Your task to perform on an android device: check storage Image 0: 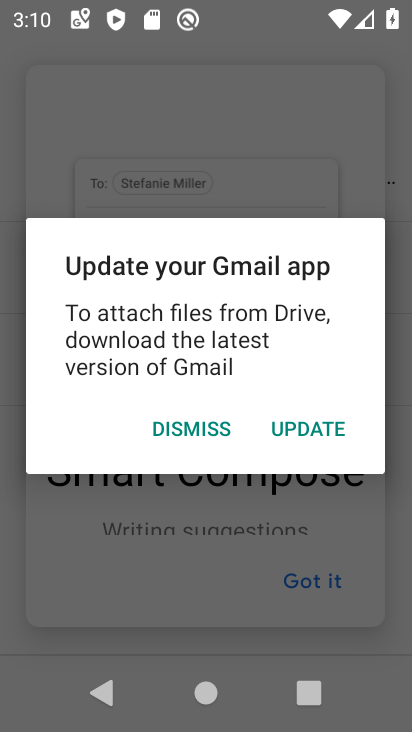
Step 0: click (171, 433)
Your task to perform on an android device: check storage Image 1: 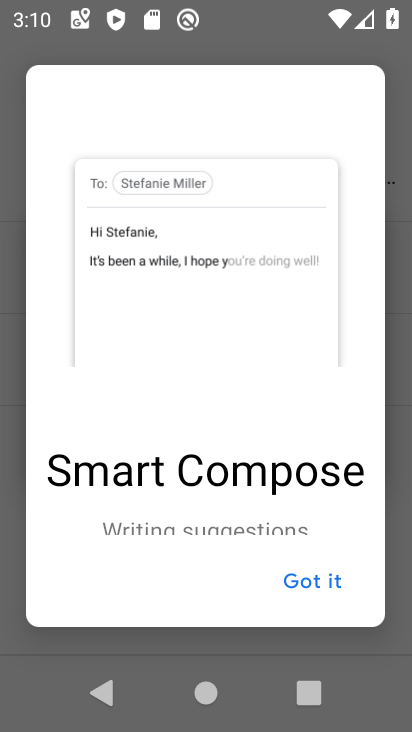
Step 1: click (329, 584)
Your task to perform on an android device: check storage Image 2: 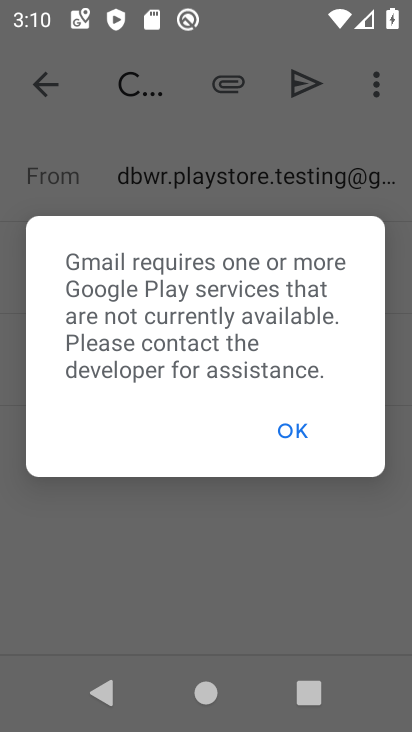
Step 2: click (294, 439)
Your task to perform on an android device: check storage Image 3: 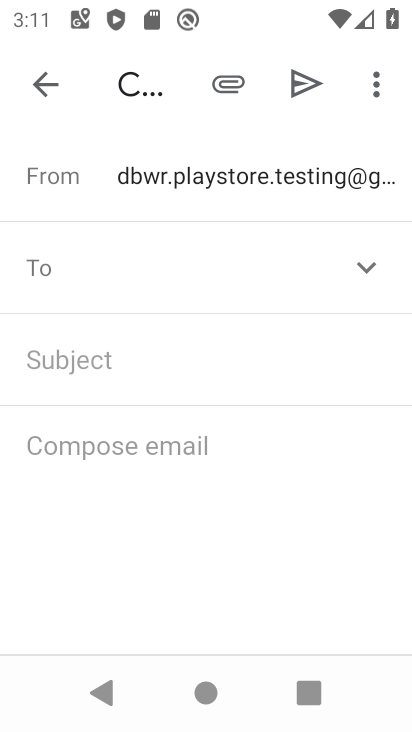
Step 3: press home button
Your task to perform on an android device: check storage Image 4: 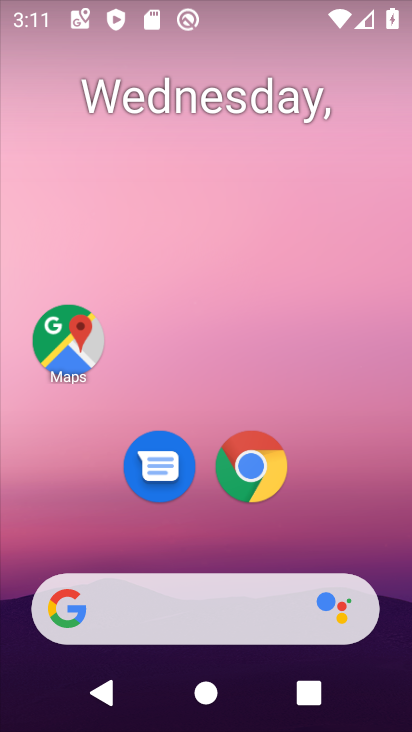
Step 4: drag from (207, 559) to (145, 41)
Your task to perform on an android device: check storage Image 5: 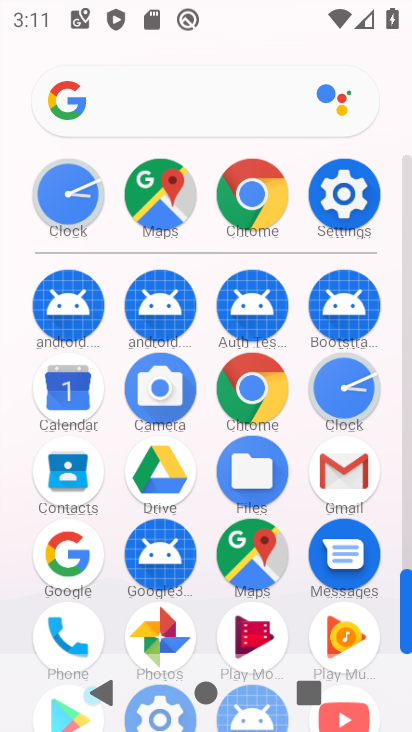
Step 5: click (326, 194)
Your task to perform on an android device: check storage Image 6: 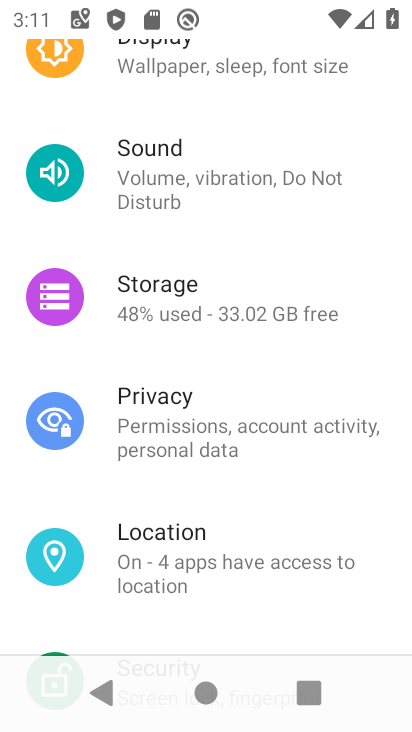
Step 6: click (160, 308)
Your task to perform on an android device: check storage Image 7: 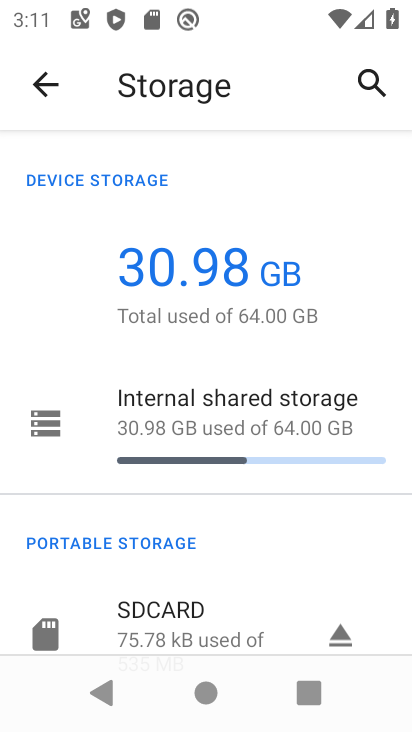
Step 7: task complete